Your task to perform on an android device: check google app version Image 0: 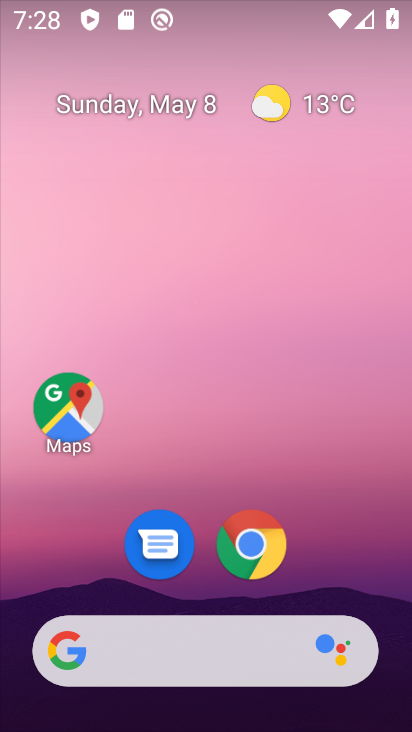
Step 0: click (207, 645)
Your task to perform on an android device: check google app version Image 1: 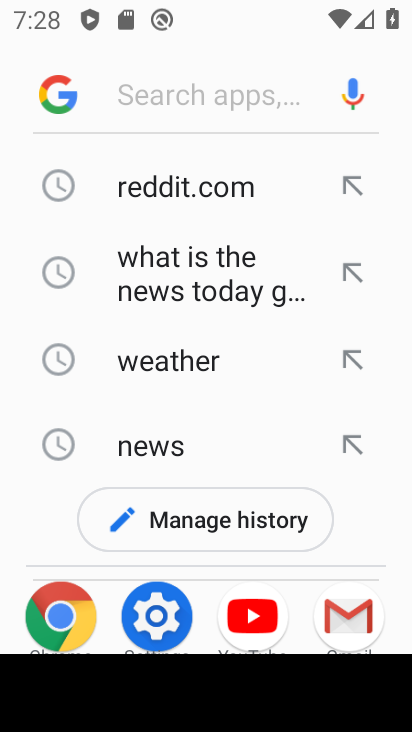
Step 1: click (52, 96)
Your task to perform on an android device: check google app version Image 2: 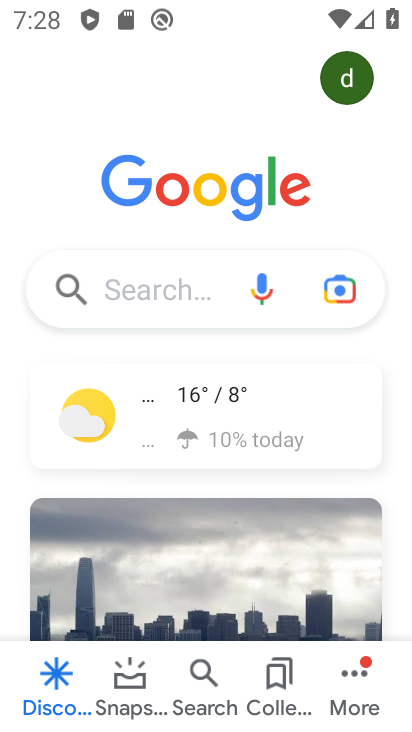
Step 2: click (355, 670)
Your task to perform on an android device: check google app version Image 3: 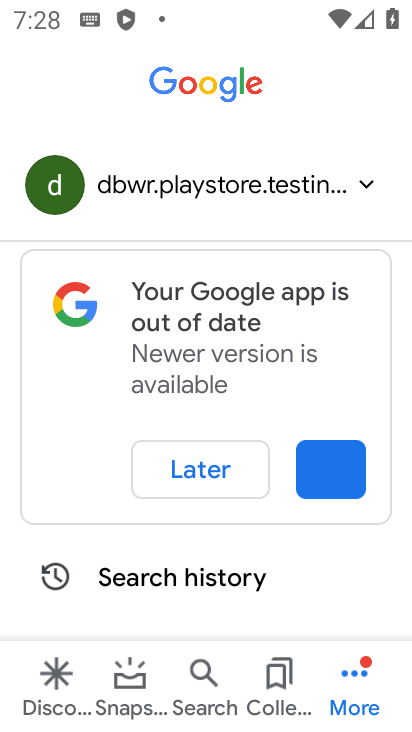
Step 3: click (285, 151)
Your task to perform on an android device: check google app version Image 4: 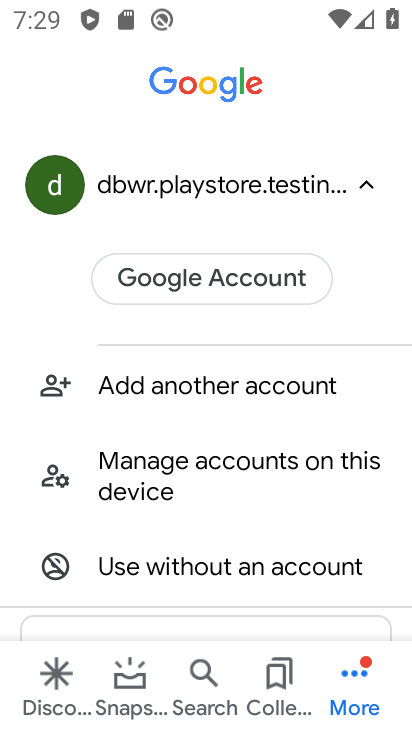
Step 4: drag from (208, 540) to (224, 258)
Your task to perform on an android device: check google app version Image 5: 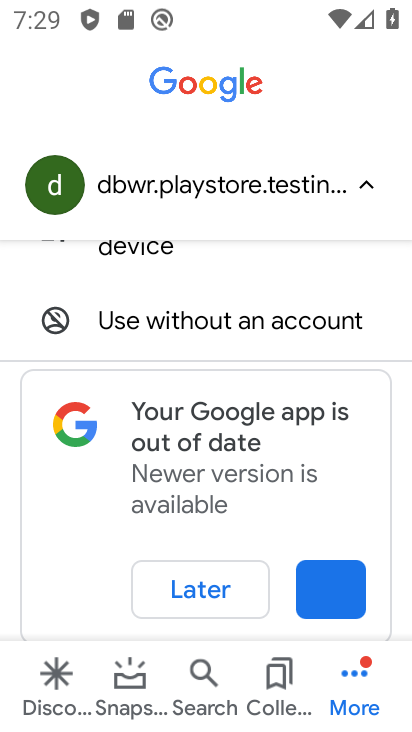
Step 5: drag from (196, 496) to (207, 197)
Your task to perform on an android device: check google app version Image 6: 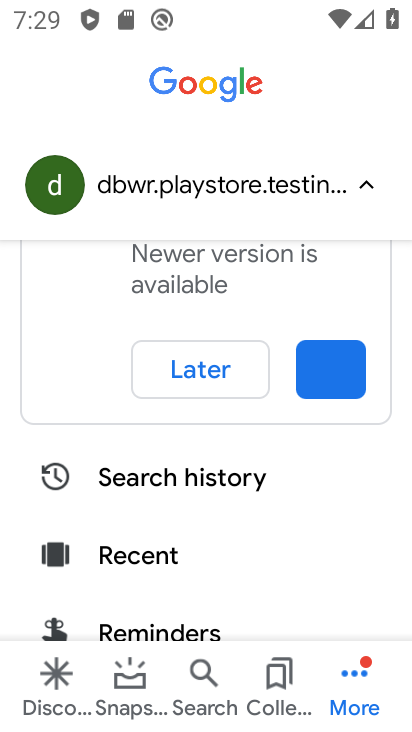
Step 6: drag from (216, 584) to (212, 269)
Your task to perform on an android device: check google app version Image 7: 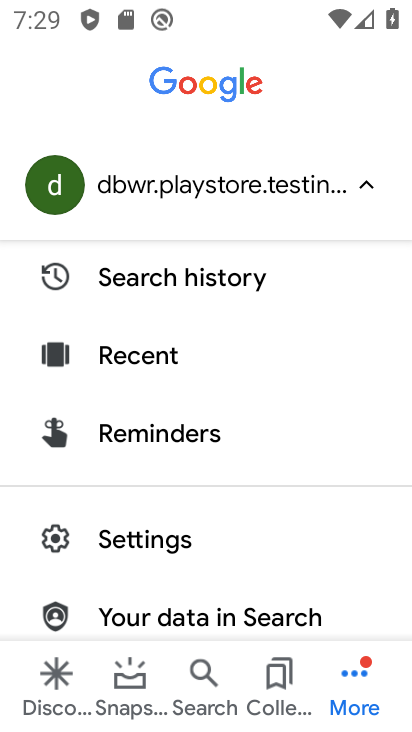
Step 7: click (142, 542)
Your task to perform on an android device: check google app version Image 8: 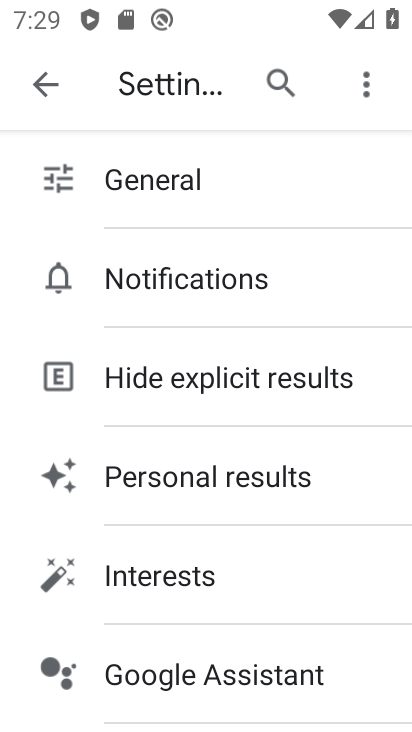
Step 8: drag from (262, 573) to (263, 252)
Your task to perform on an android device: check google app version Image 9: 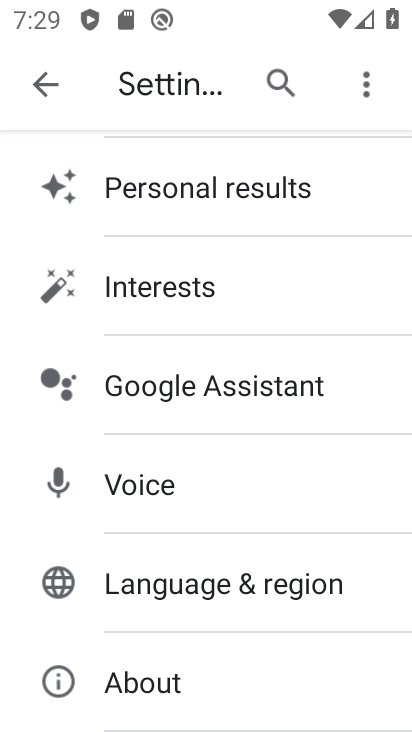
Step 9: click (153, 684)
Your task to perform on an android device: check google app version Image 10: 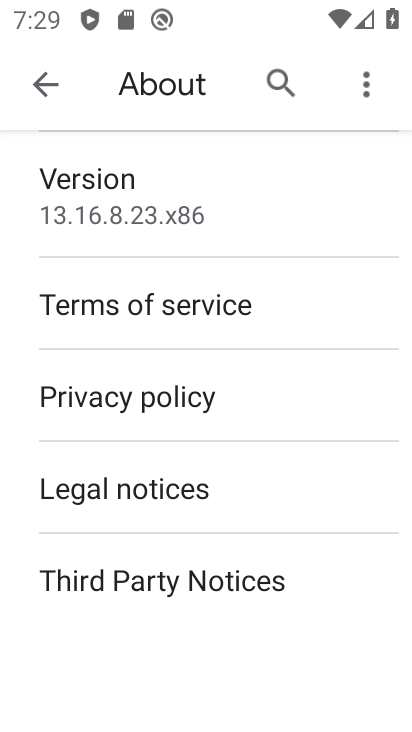
Step 10: task complete